Your task to perform on an android device: Open the map Image 0: 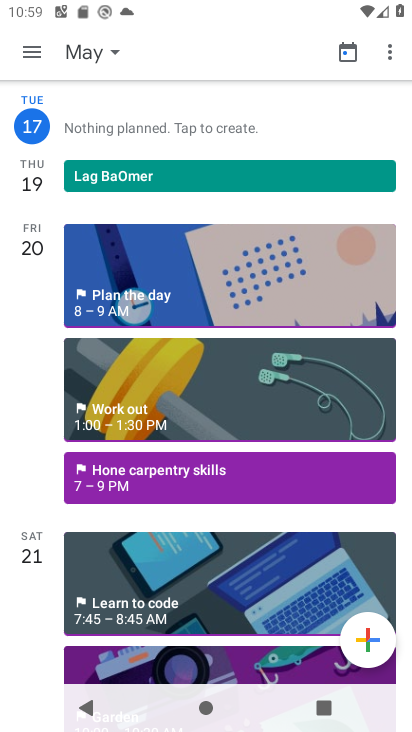
Step 0: press back button
Your task to perform on an android device: Open the map Image 1: 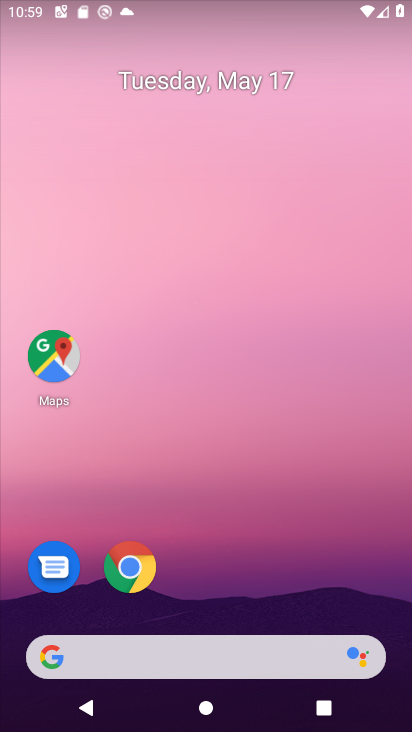
Step 1: click (29, 342)
Your task to perform on an android device: Open the map Image 2: 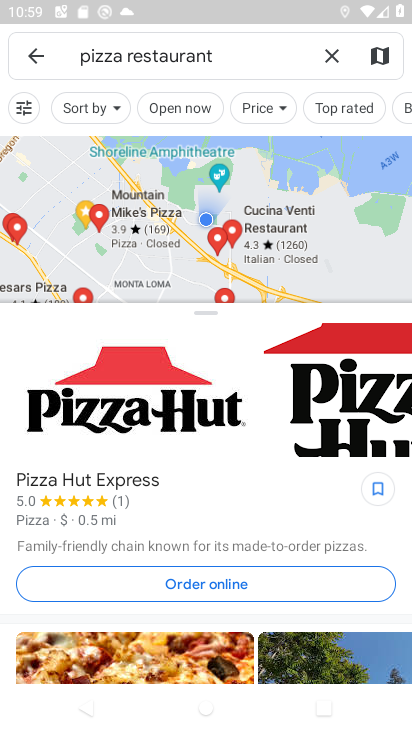
Step 2: task complete